Your task to perform on an android device: empty trash in google photos Image 0: 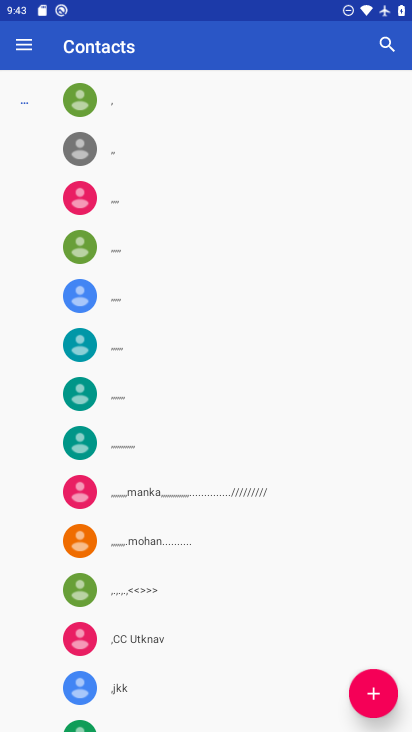
Step 0: press home button
Your task to perform on an android device: empty trash in google photos Image 1: 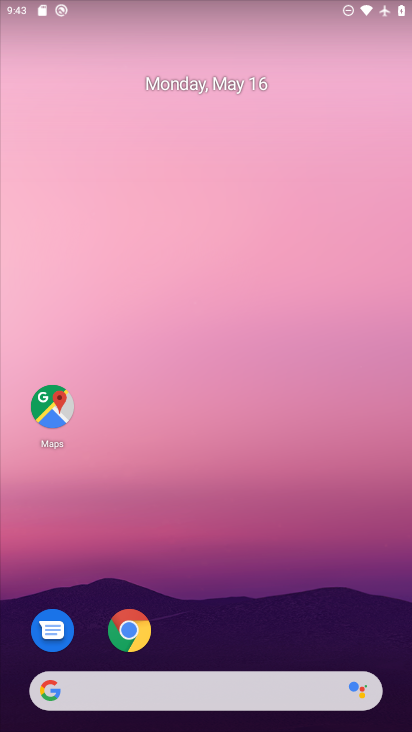
Step 1: drag from (197, 631) to (205, 84)
Your task to perform on an android device: empty trash in google photos Image 2: 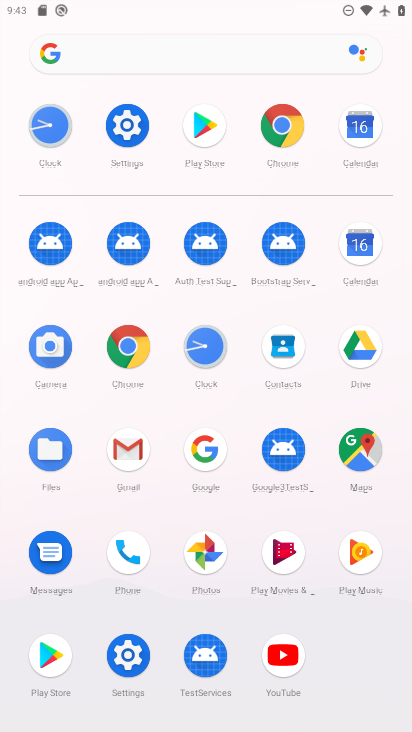
Step 2: click (202, 541)
Your task to perform on an android device: empty trash in google photos Image 3: 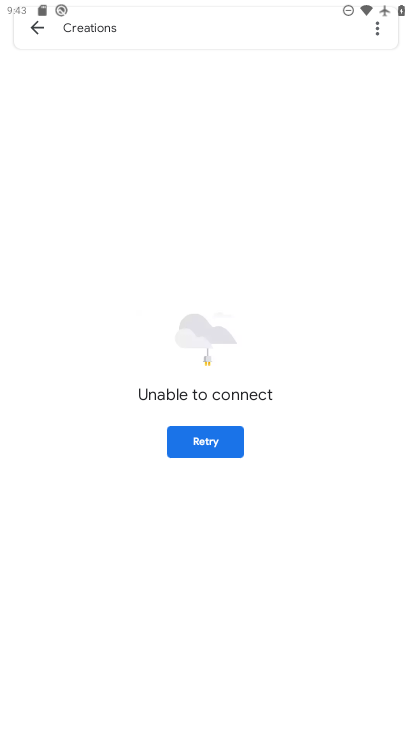
Step 3: task complete